Your task to perform on an android device: Go to Google maps Image 0: 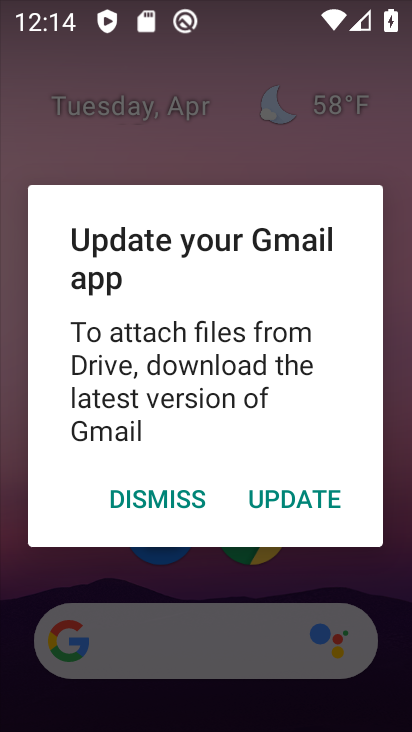
Step 0: press home button
Your task to perform on an android device: Go to Google maps Image 1: 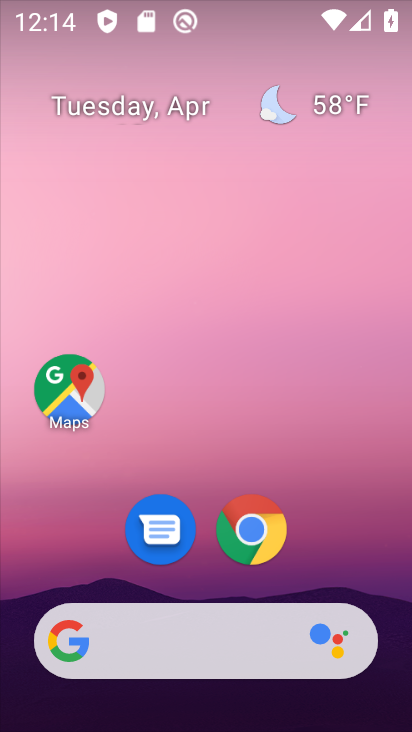
Step 1: drag from (378, 595) to (250, 91)
Your task to perform on an android device: Go to Google maps Image 2: 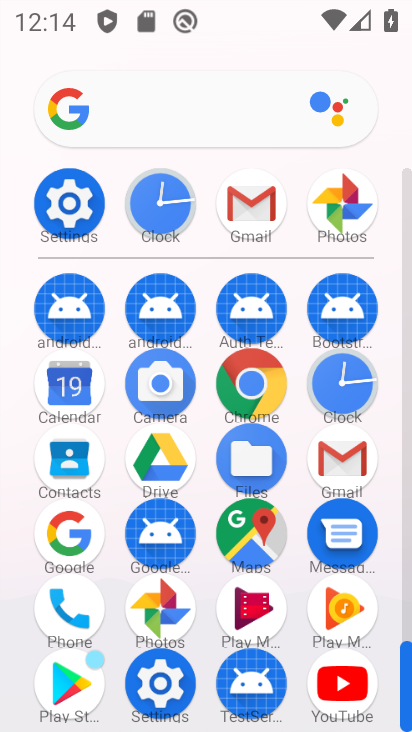
Step 2: click (271, 522)
Your task to perform on an android device: Go to Google maps Image 3: 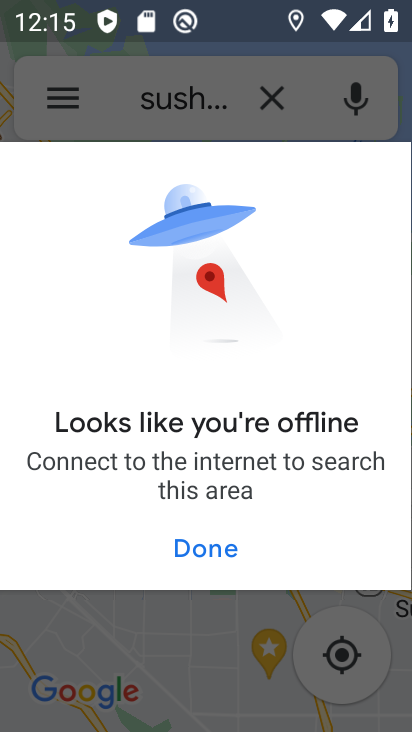
Step 3: click (234, 553)
Your task to perform on an android device: Go to Google maps Image 4: 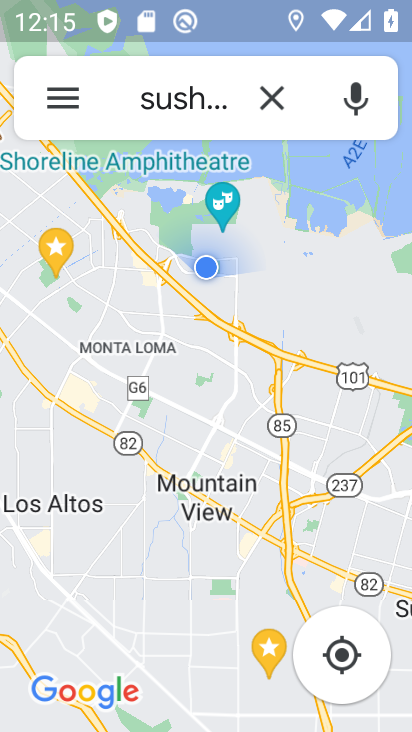
Step 4: click (274, 90)
Your task to perform on an android device: Go to Google maps Image 5: 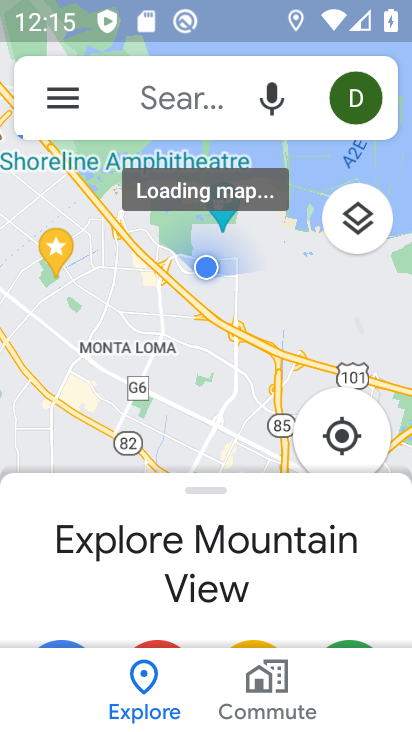
Step 5: task complete